Your task to perform on an android device: Open Android settings Image 0: 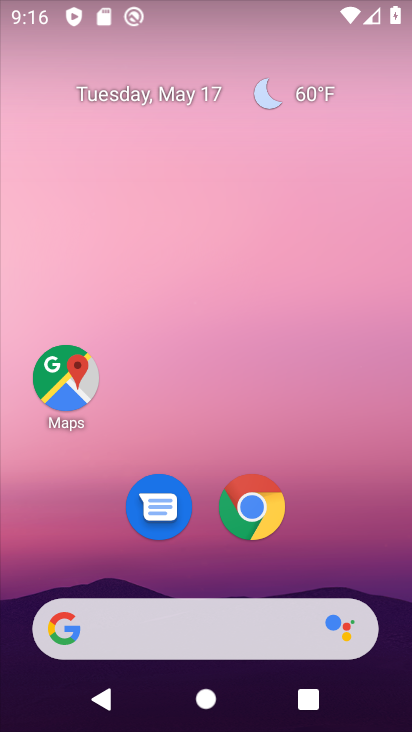
Step 0: drag from (336, 673) to (122, 223)
Your task to perform on an android device: Open Android settings Image 1: 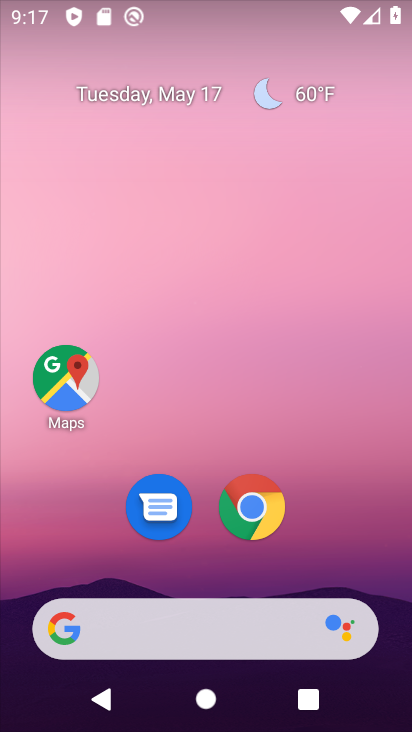
Step 1: drag from (237, 483) to (165, 113)
Your task to perform on an android device: Open Android settings Image 2: 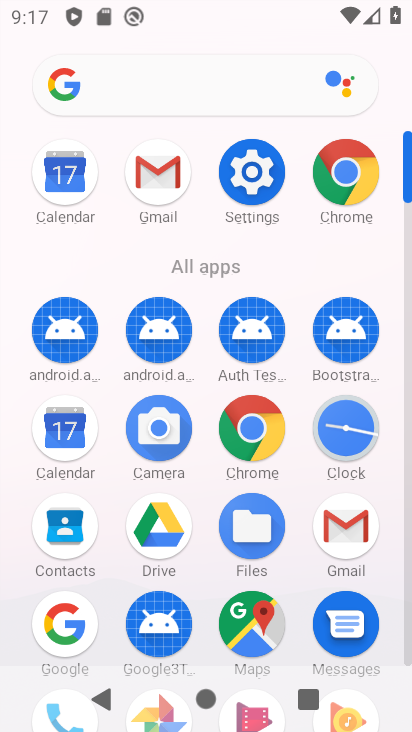
Step 2: click (342, 156)
Your task to perform on an android device: Open Android settings Image 3: 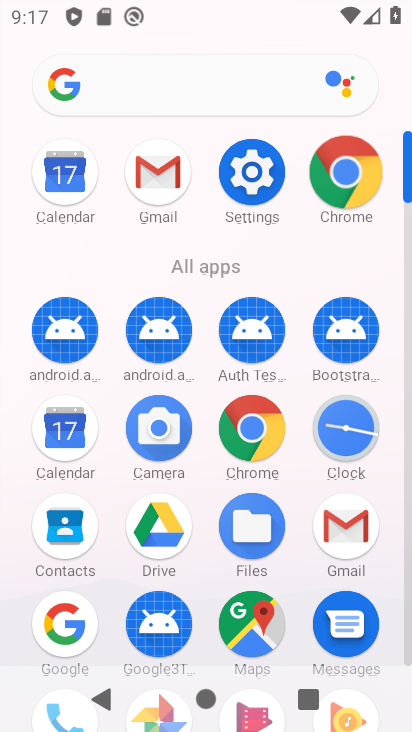
Step 3: click (342, 159)
Your task to perform on an android device: Open Android settings Image 4: 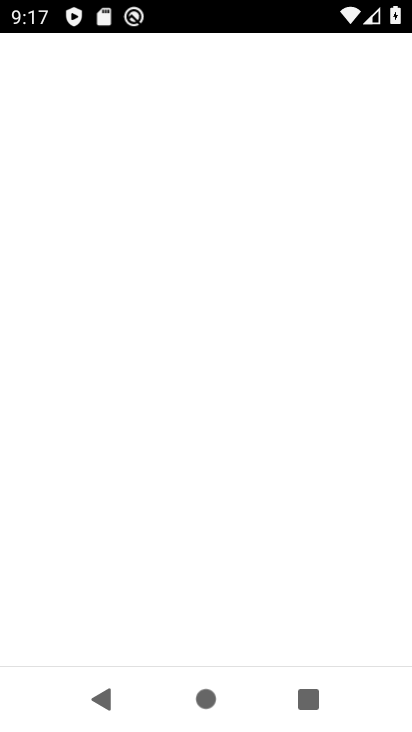
Step 4: click (343, 160)
Your task to perform on an android device: Open Android settings Image 5: 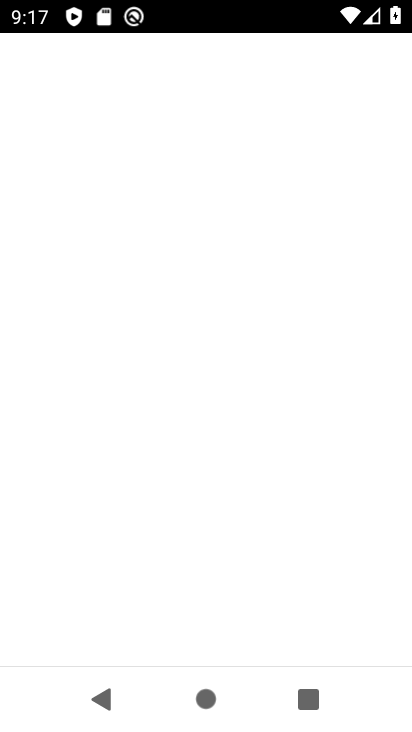
Step 5: click (346, 156)
Your task to perform on an android device: Open Android settings Image 6: 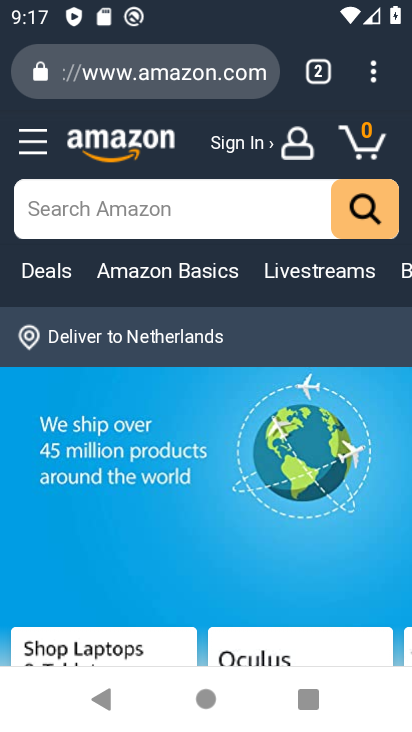
Step 6: click (362, 70)
Your task to perform on an android device: Open Android settings Image 7: 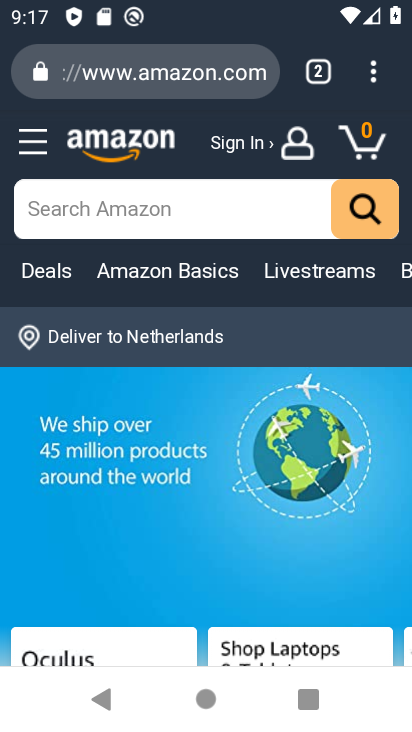
Step 7: press home button
Your task to perform on an android device: Open Android settings Image 8: 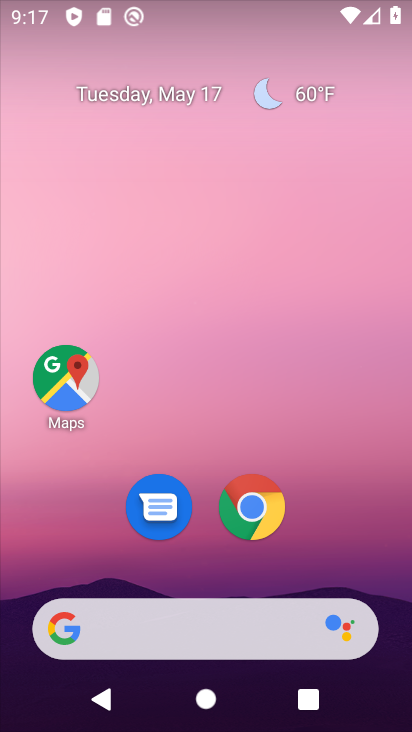
Step 8: drag from (252, 539) to (209, 49)
Your task to perform on an android device: Open Android settings Image 9: 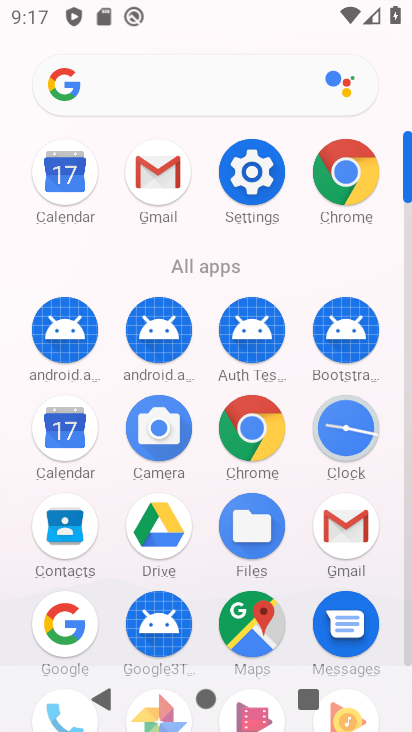
Step 9: click (237, 183)
Your task to perform on an android device: Open Android settings Image 10: 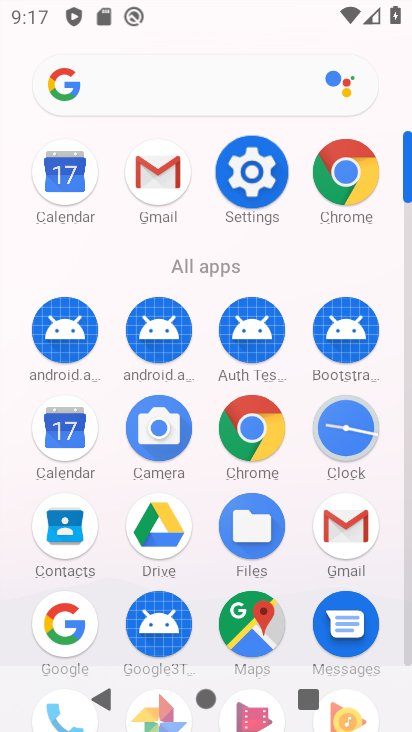
Step 10: click (241, 181)
Your task to perform on an android device: Open Android settings Image 11: 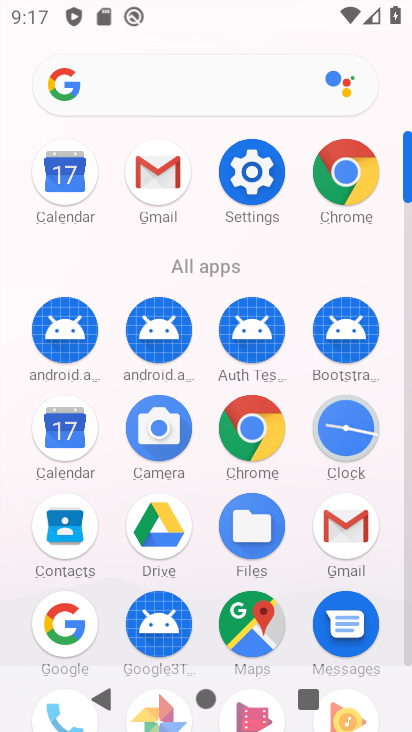
Step 11: click (247, 175)
Your task to perform on an android device: Open Android settings Image 12: 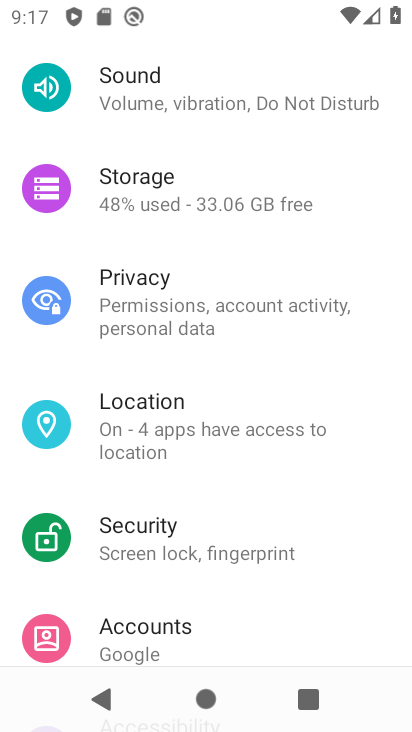
Step 12: click (247, 175)
Your task to perform on an android device: Open Android settings Image 13: 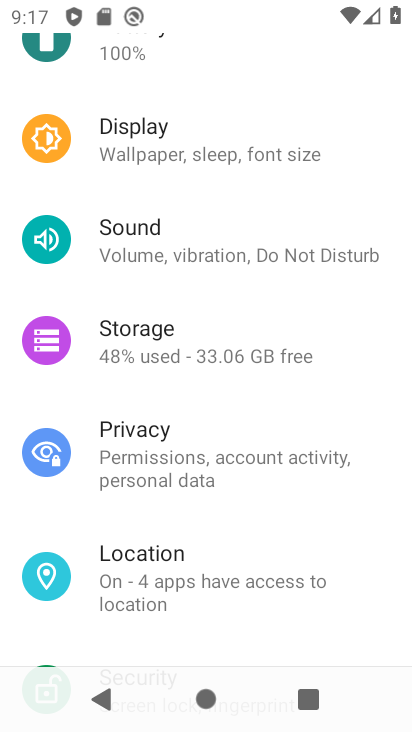
Step 13: click (247, 175)
Your task to perform on an android device: Open Android settings Image 14: 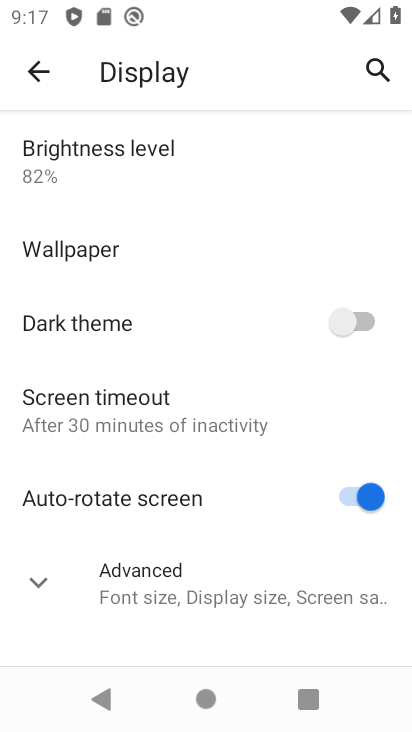
Step 14: click (23, 64)
Your task to perform on an android device: Open Android settings Image 15: 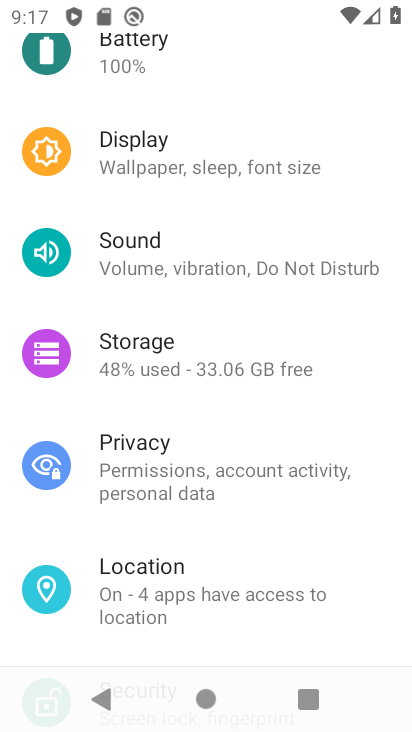
Step 15: drag from (145, 449) to (112, 77)
Your task to perform on an android device: Open Android settings Image 16: 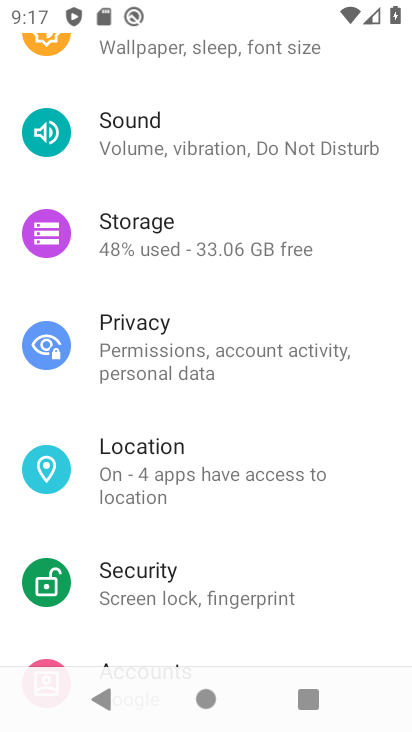
Step 16: drag from (201, 522) to (188, 122)
Your task to perform on an android device: Open Android settings Image 17: 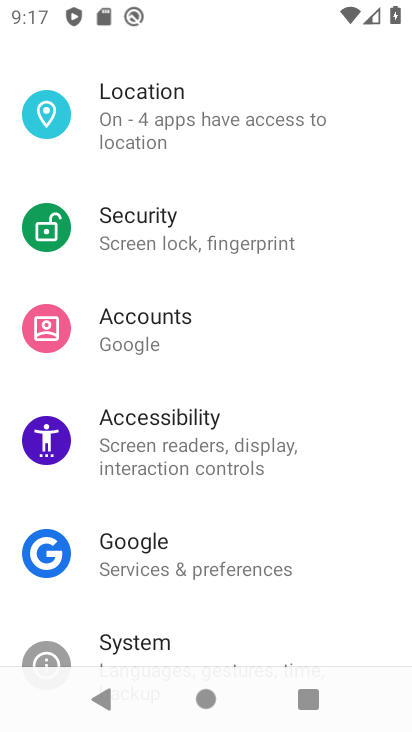
Step 17: drag from (175, 270) to (156, 179)
Your task to perform on an android device: Open Android settings Image 18: 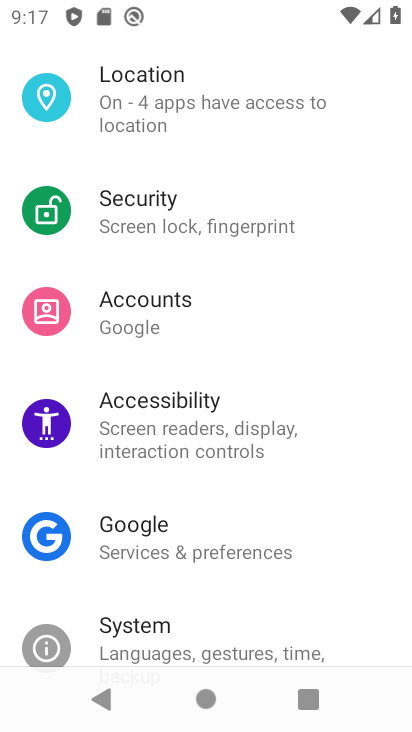
Step 18: drag from (204, 480) to (154, 160)
Your task to perform on an android device: Open Android settings Image 19: 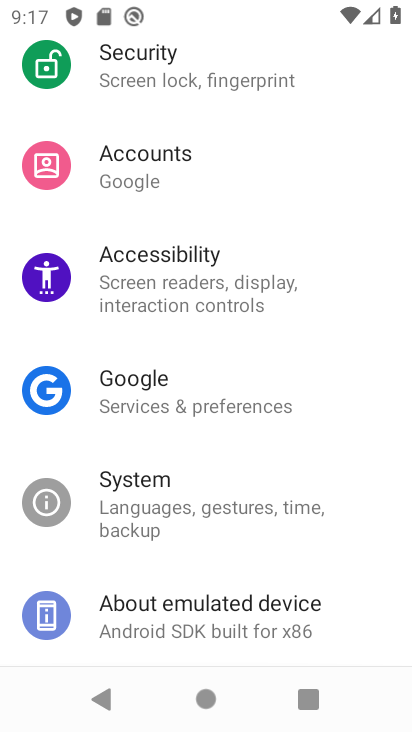
Step 19: drag from (211, 517) to (177, 51)
Your task to perform on an android device: Open Android settings Image 20: 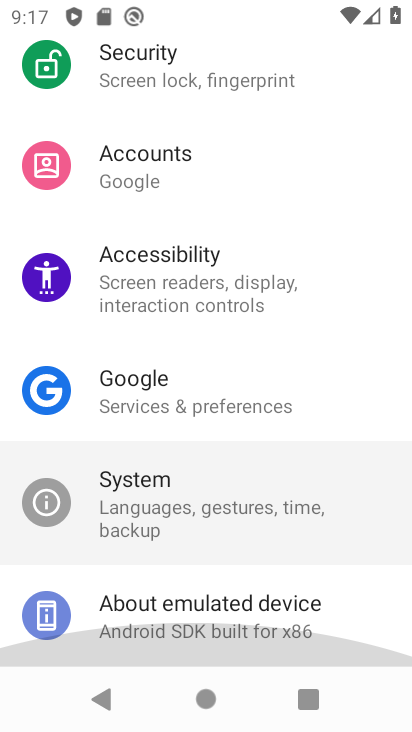
Step 20: drag from (183, 451) to (156, 264)
Your task to perform on an android device: Open Android settings Image 21: 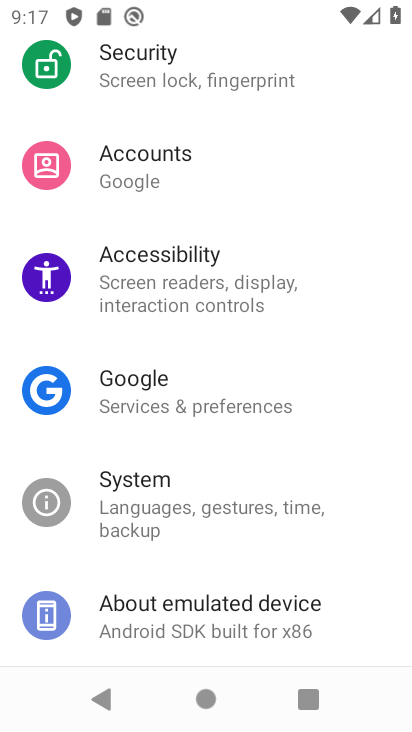
Step 21: click (204, 612)
Your task to perform on an android device: Open Android settings Image 22: 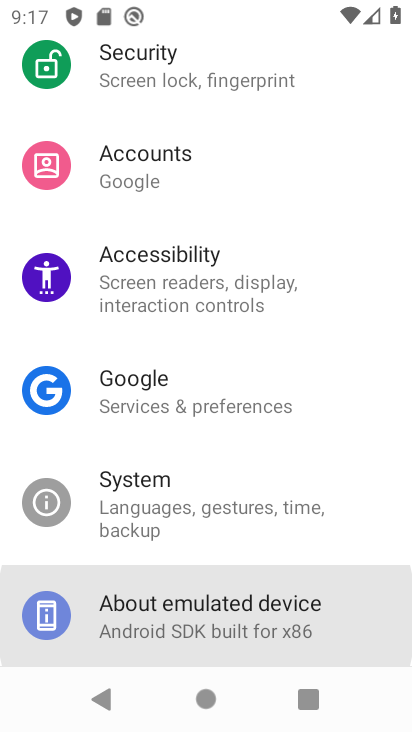
Step 22: click (204, 612)
Your task to perform on an android device: Open Android settings Image 23: 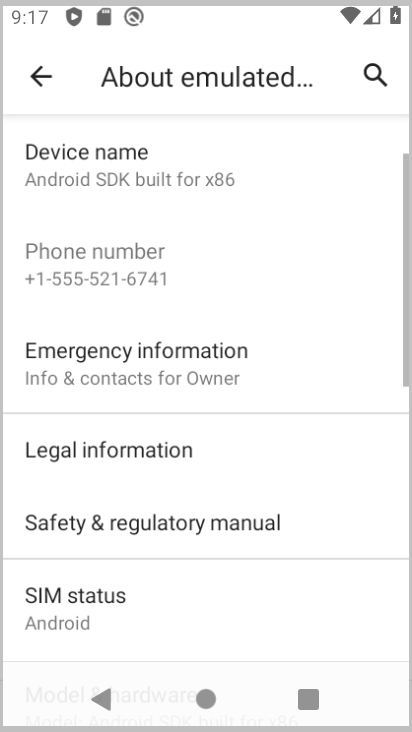
Step 23: click (204, 612)
Your task to perform on an android device: Open Android settings Image 24: 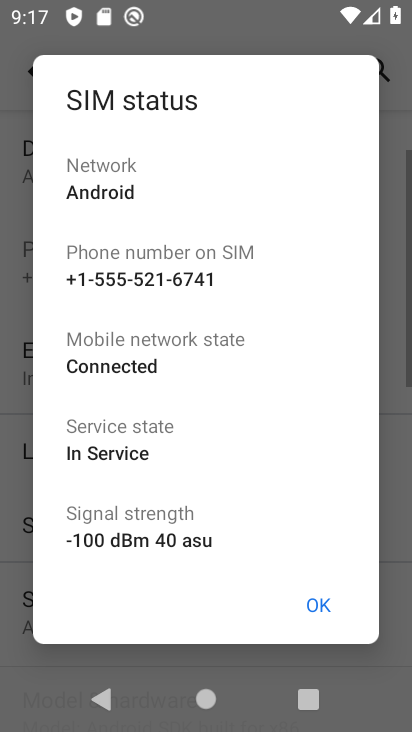
Step 24: click (315, 609)
Your task to perform on an android device: Open Android settings Image 25: 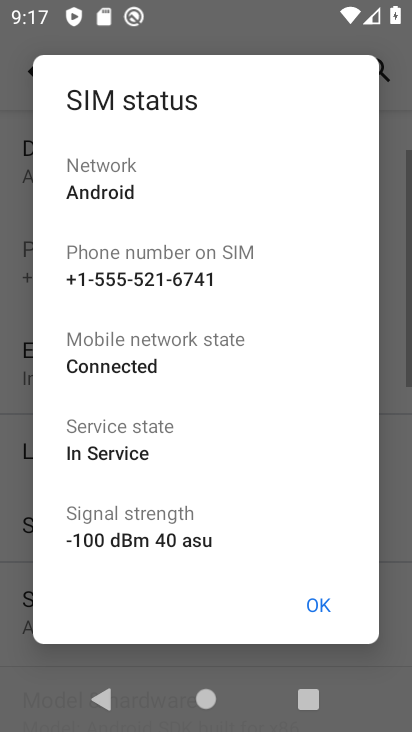
Step 25: click (310, 598)
Your task to perform on an android device: Open Android settings Image 26: 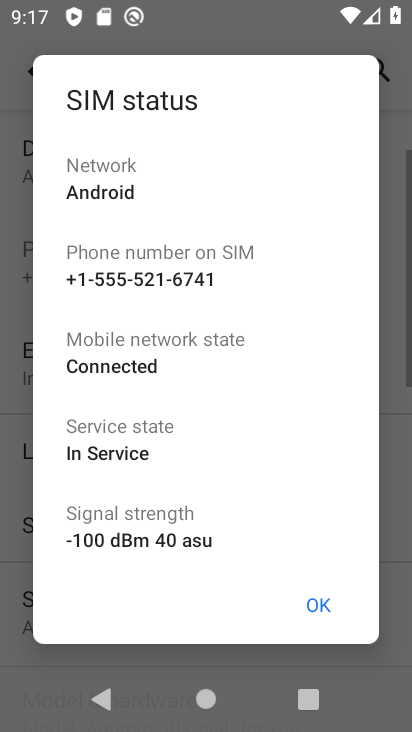
Step 26: click (307, 601)
Your task to perform on an android device: Open Android settings Image 27: 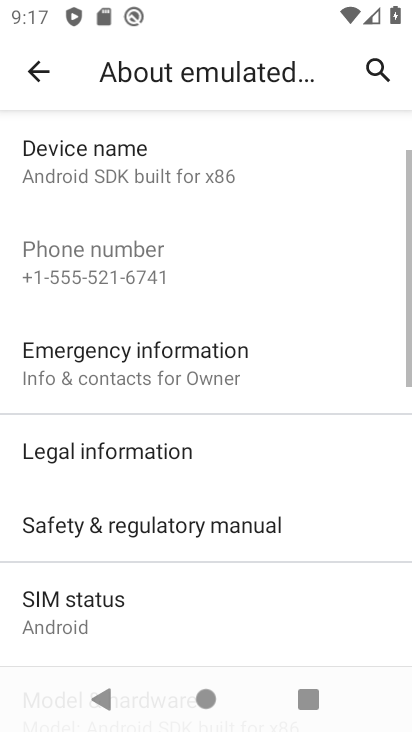
Step 27: task complete